Your task to perform on an android device: turn on sleep mode Image 0: 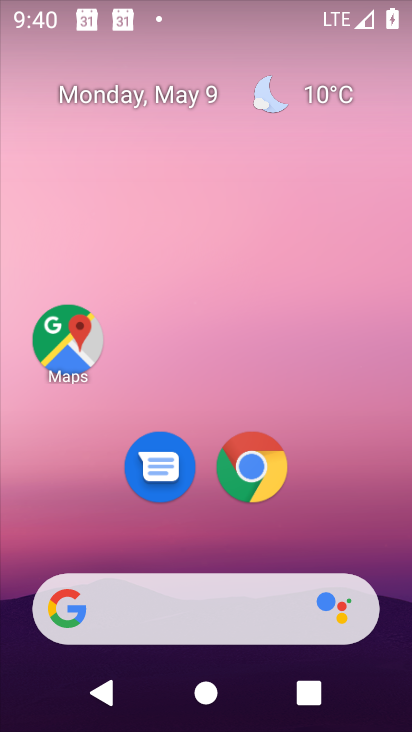
Step 0: drag from (393, 556) to (403, 4)
Your task to perform on an android device: turn on sleep mode Image 1: 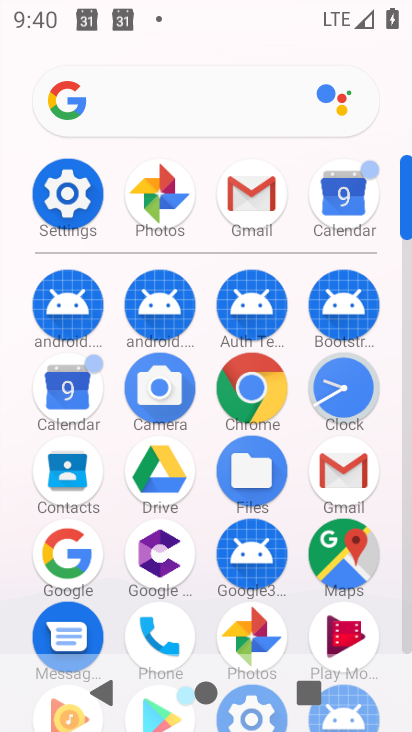
Step 1: click (57, 221)
Your task to perform on an android device: turn on sleep mode Image 2: 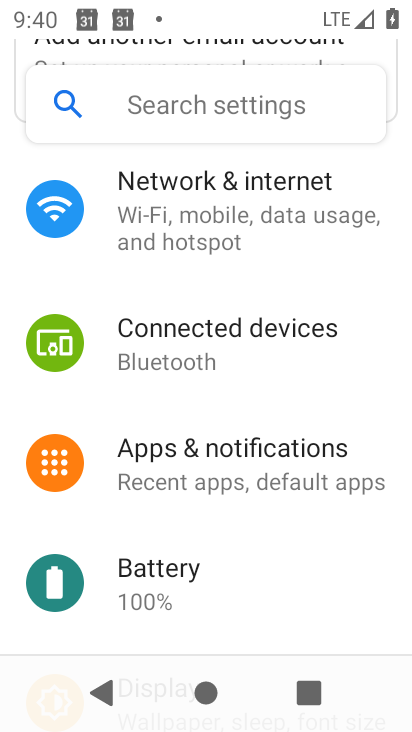
Step 2: drag from (238, 541) to (239, 233)
Your task to perform on an android device: turn on sleep mode Image 3: 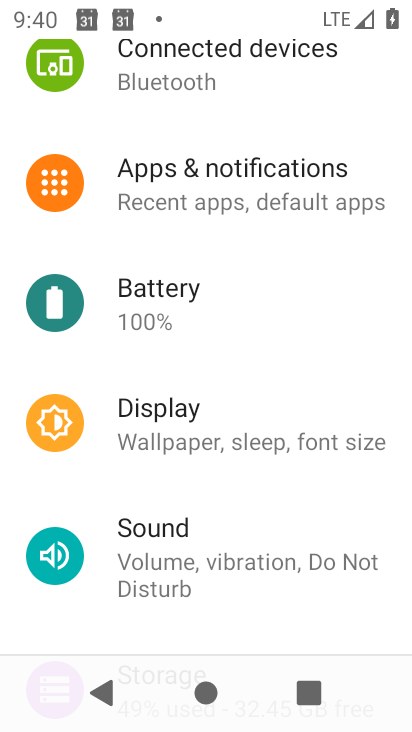
Step 3: click (183, 431)
Your task to perform on an android device: turn on sleep mode Image 4: 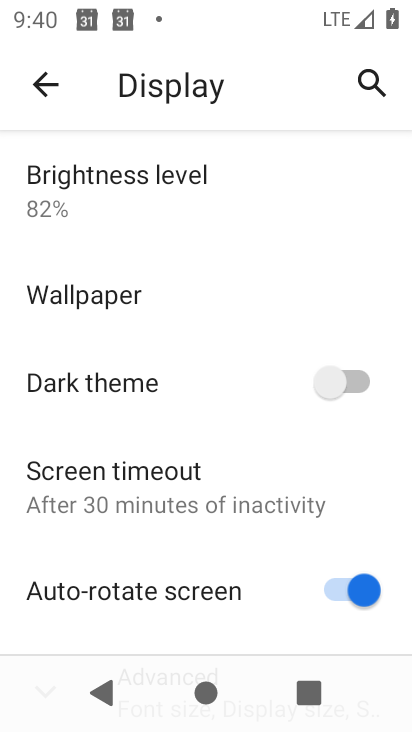
Step 4: drag from (161, 472) to (132, 107)
Your task to perform on an android device: turn on sleep mode Image 5: 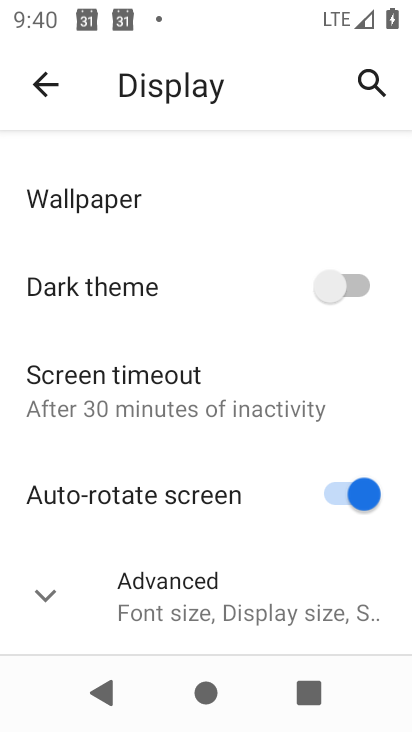
Step 5: click (34, 607)
Your task to perform on an android device: turn on sleep mode Image 6: 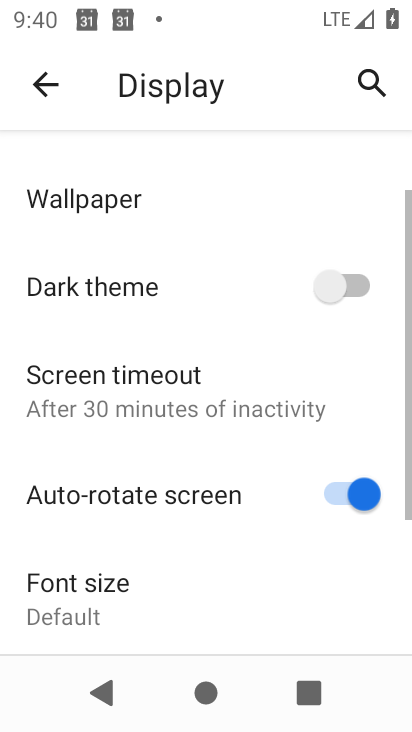
Step 6: task complete